Your task to perform on an android device: Open Maps and search for coffee Image 0: 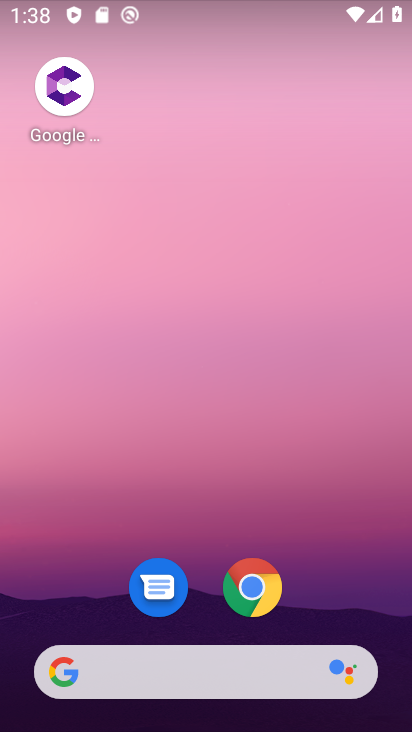
Step 0: drag from (206, 609) to (265, 175)
Your task to perform on an android device: Open Maps and search for coffee Image 1: 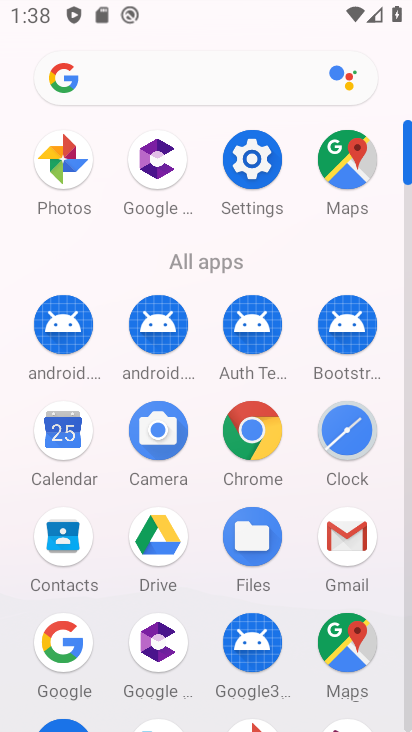
Step 1: click (347, 645)
Your task to perform on an android device: Open Maps and search for coffee Image 2: 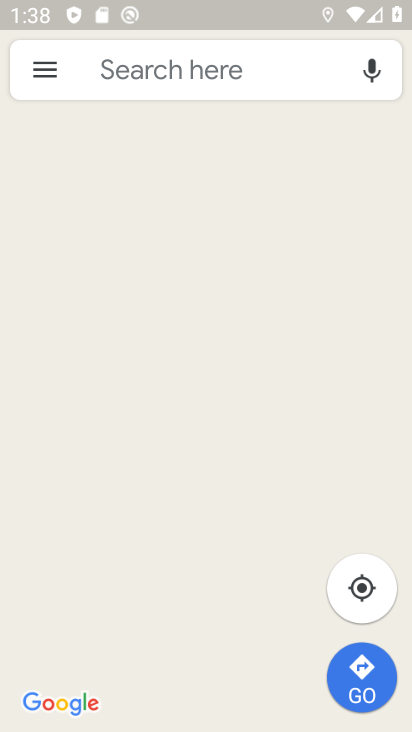
Step 2: click (189, 74)
Your task to perform on an android device: Open Maps and search for coffee Image 3: 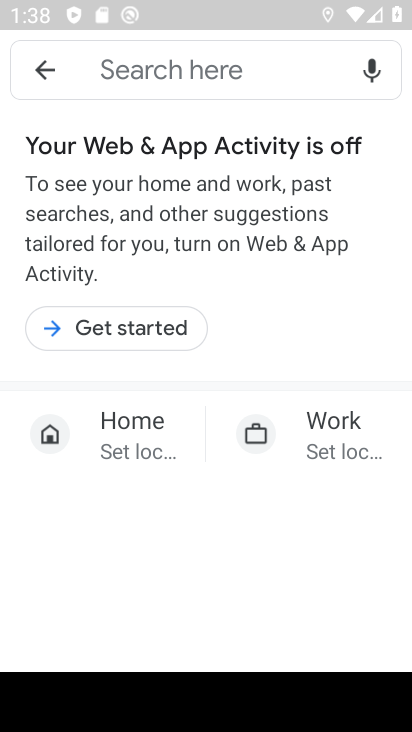
Step 3: click (132, 342)
Your task to perform on an android device: Open Maps and search for coffee Image 4: 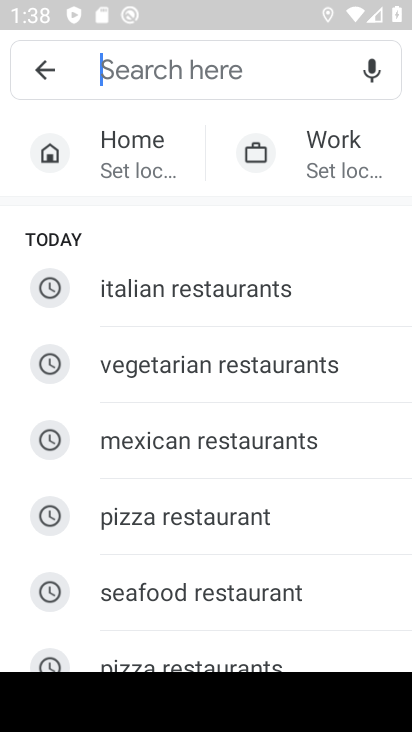
Step 4: drag from (263, 563) to (277, 251)
Your task to perform on an android device: Open Maps and search for coffee Image 5: 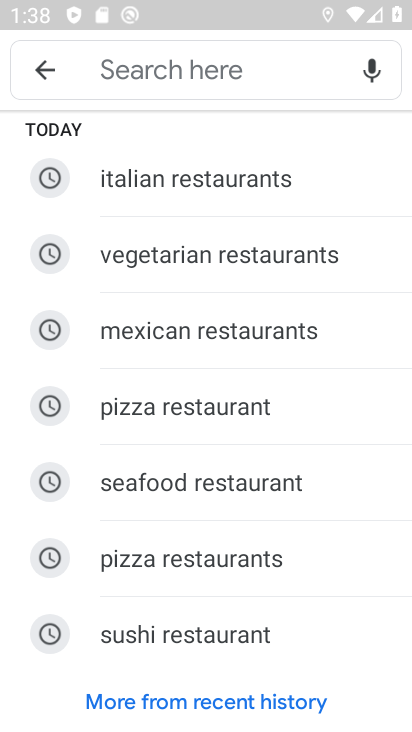
Step 5: click (214, 72)
Your task to perform on an android device: Open Maps and search for coffee Image 6: 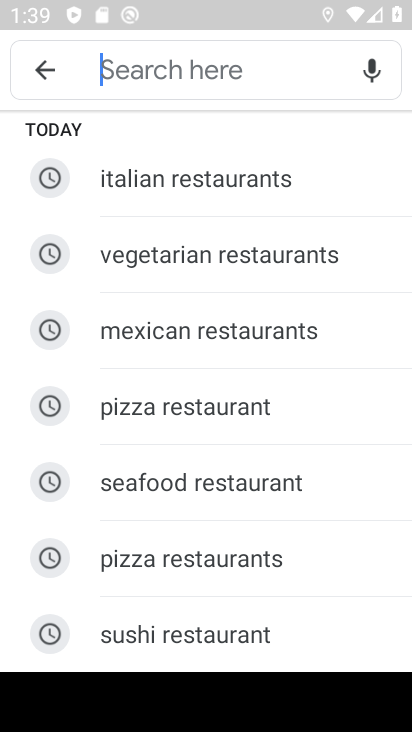
Step 6: type "coffee"
Your task to perform on an android device: Open Maps and search for coffee Image 7: 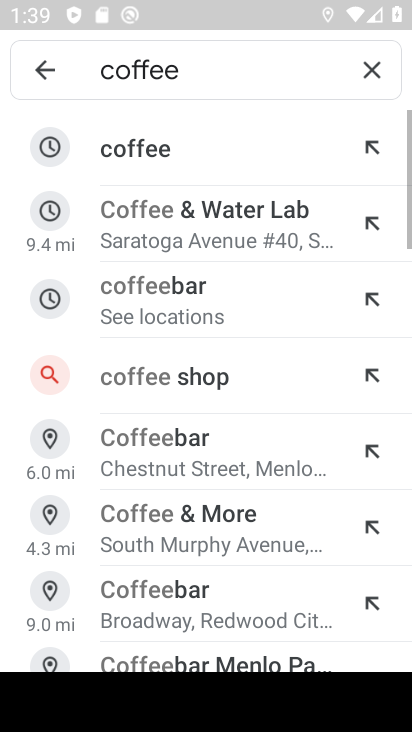
Step 7: click (160, 153)
Your task to perform on an android device: Open Maps and search for coffee Image 8: 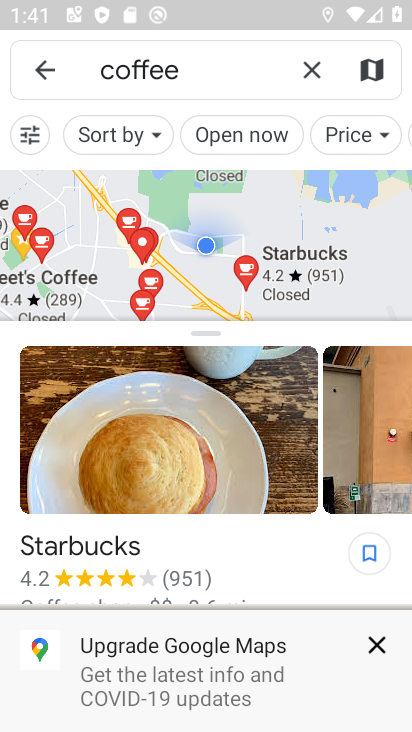
Step 8: task complete